Your task to perform on an android device: make emails show in primary in the gmail app Image 0: 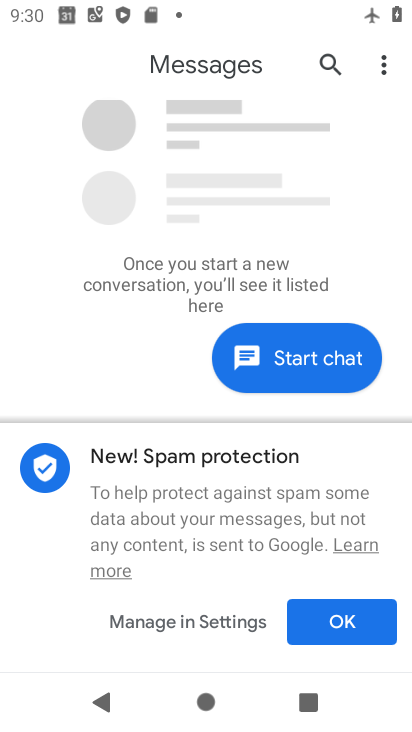
Step 0: press home button
Your task to perform on an android device: make emails show in primary in the gmail app Image 1: 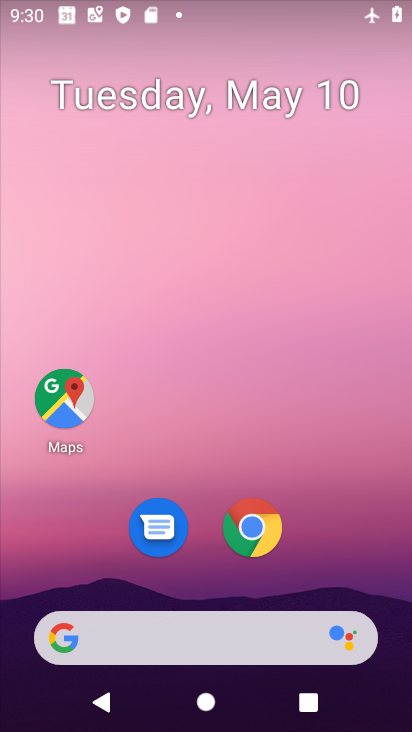
Step 1: drag from (338, 582) to (305, 325)
Your task to perform on an android device: make emails show in primary in the gmail app Image 2: 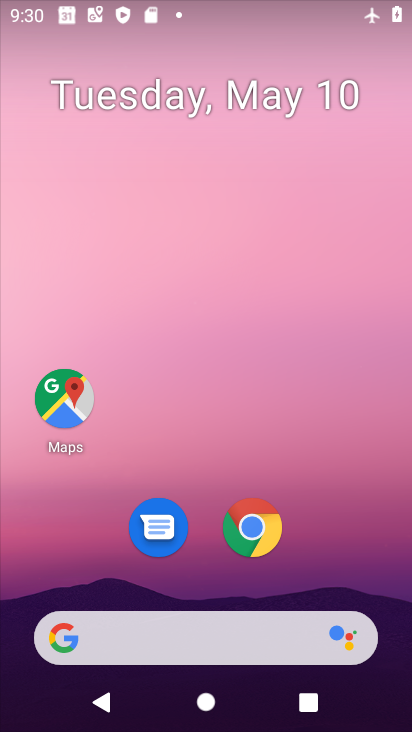
Step 2: drag from (304, 586) to (300, 297)
Your task to perform on an android device: make emails show in primary in the gmail app Image 3: 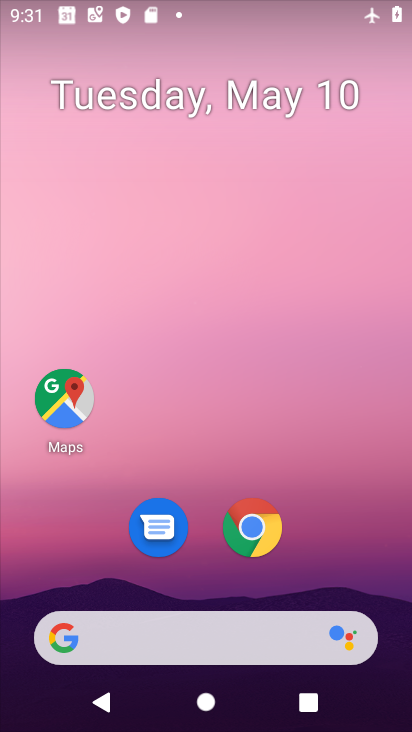
Step 3: drag from (294, 572) to (294, 288)
Your task to perform on an android device: make emails show in primary in the gmail app Image 4: 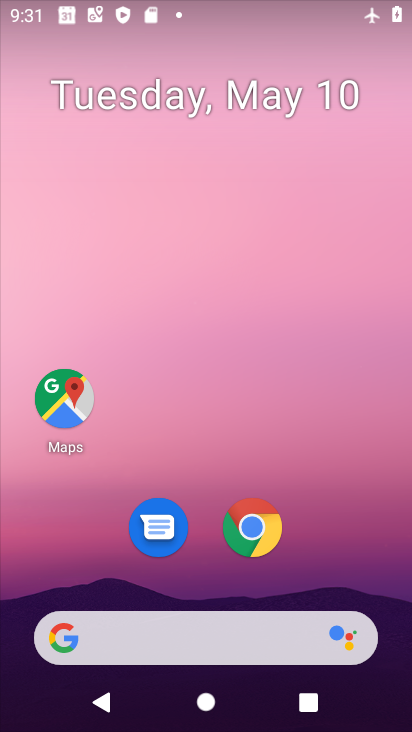
Step 4: click (311, 260)
Your task to perform on an android device: make emails show in primary in the gmail app Image 5: 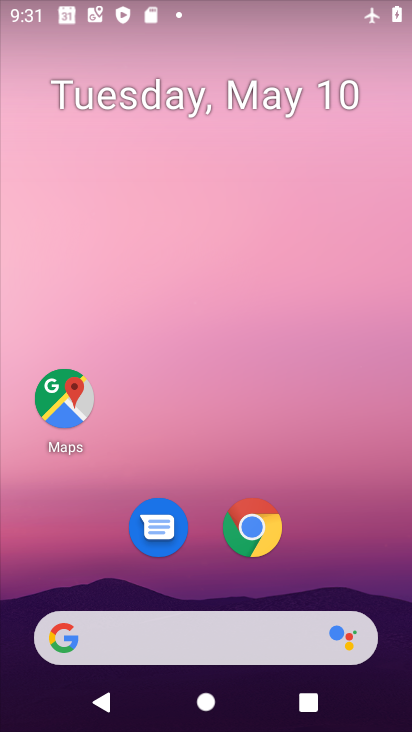
Step 5: drag from (278, 572) to (311, 219)
Your task to perform on an android device: make emails show in primary in the gmail app Image 6: 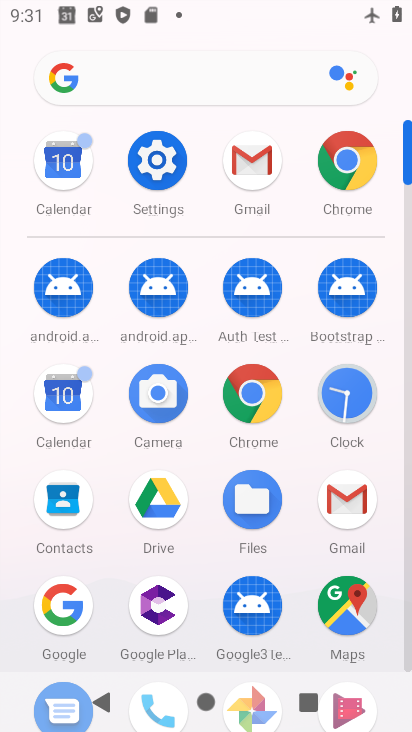
Step 6: click (352, 515)
Your task to perform on an android device: make emails show in primary in the gmail app Image 7: 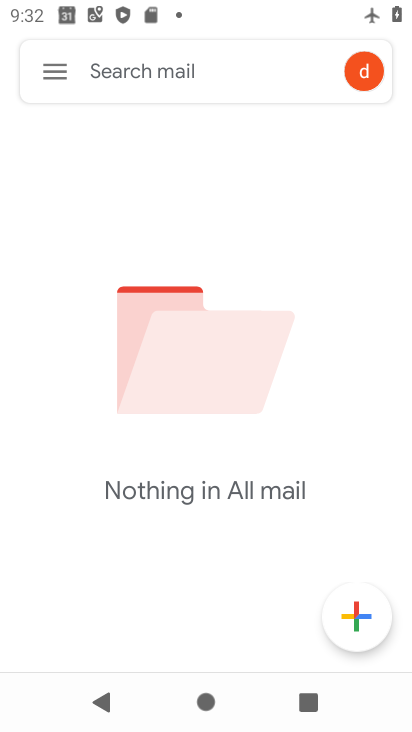
Step 7: click (342, 507)
Your task to perform on an android device: make emails show in primary in the gmail app Image 8: 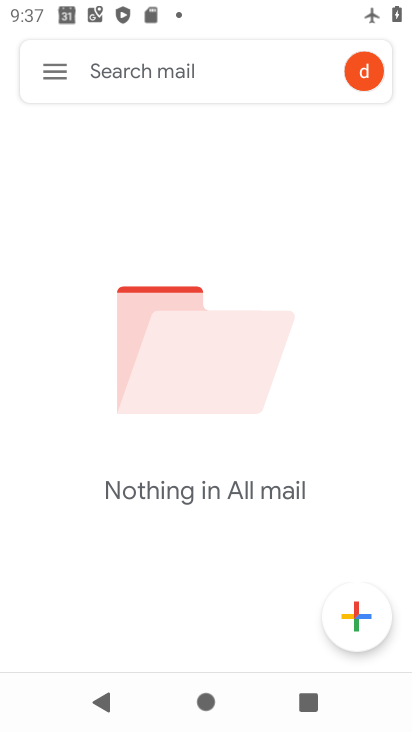
Step 8: click (205, 547)
Your task to perform on an android device: make emails show in primary in the gmail app Image 9: 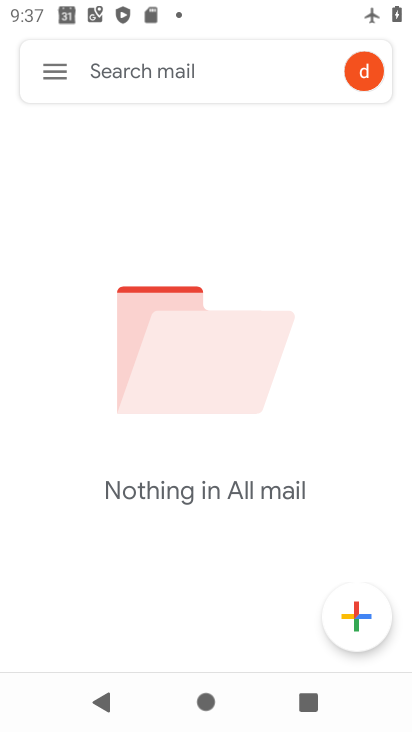
Step 9: click (54, 78)
Your task to perform on an android device: make emails show in primary in the gmail app Image 10: 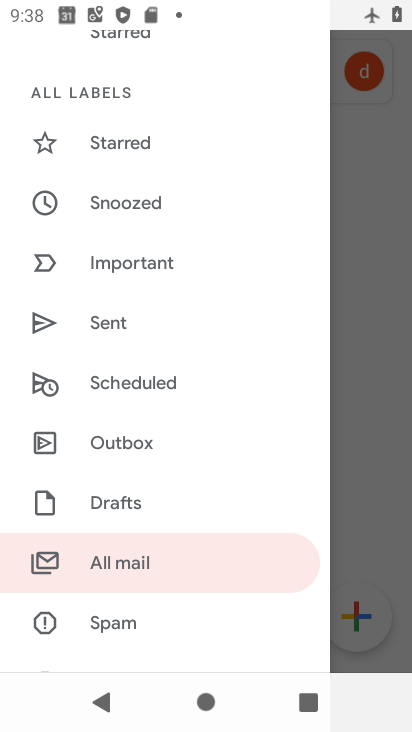
Step 10: drag from (191, 444) to (192, 270)
Your task to perform on an android device: make emails show in primary in the gmail app Image 11: 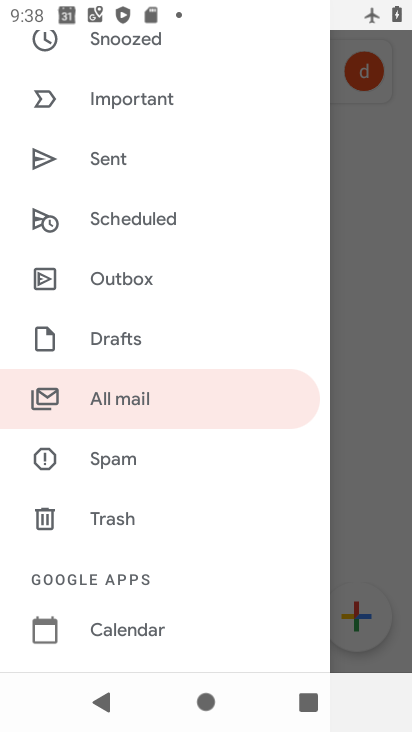
Step 11: drag from (217, 557) to (203, 345)
Your task to perform on an android device: make emails show in primary in the gmail app Image 12: 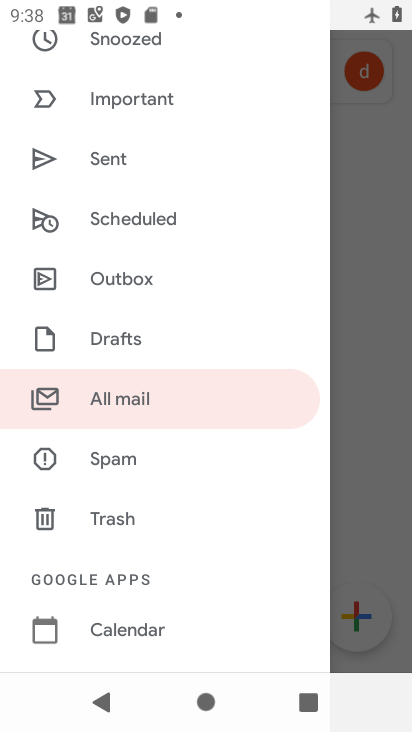
Step 12: drag from (120, 595) to (189, 303)
Your task to perform on an android device: make emails show in primary in the gmail app Image 13: 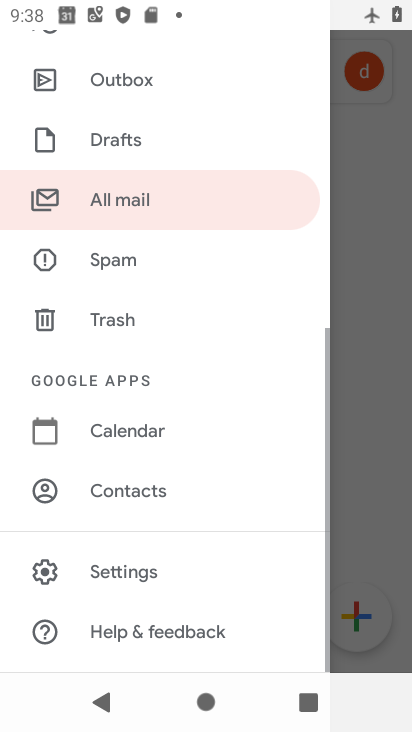
Step 13: click (140, 577)
Your task to perform on an android device: make emails show in primary in the gmail app Image 14: 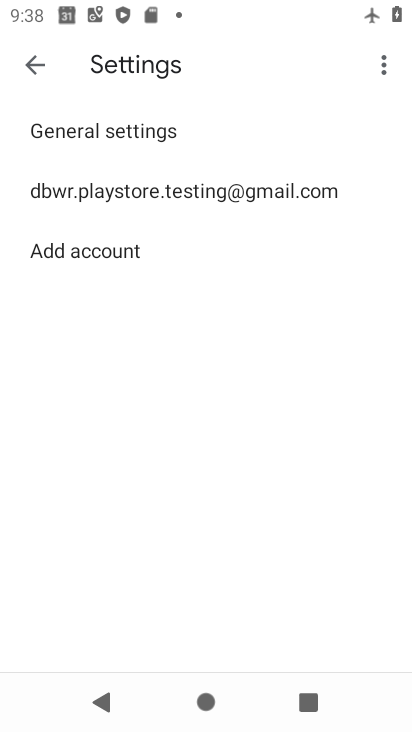
Step 14: click (189, 198)
Your task to perform on an android device: make emails show in primary in the gmail app Image 15: 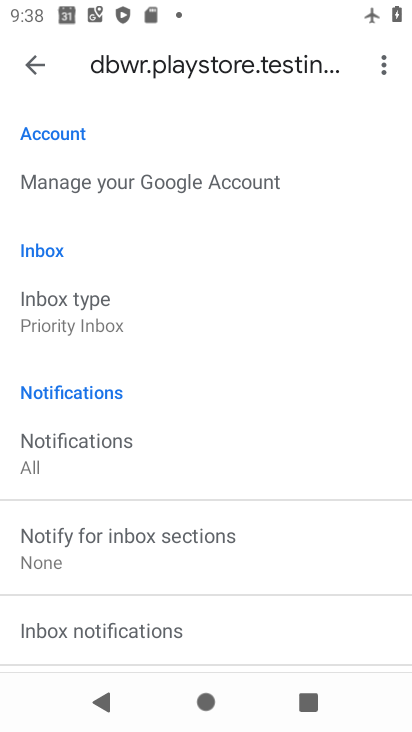
Step 15: task complete